Your task to perform on an android device: check android version Image 0: 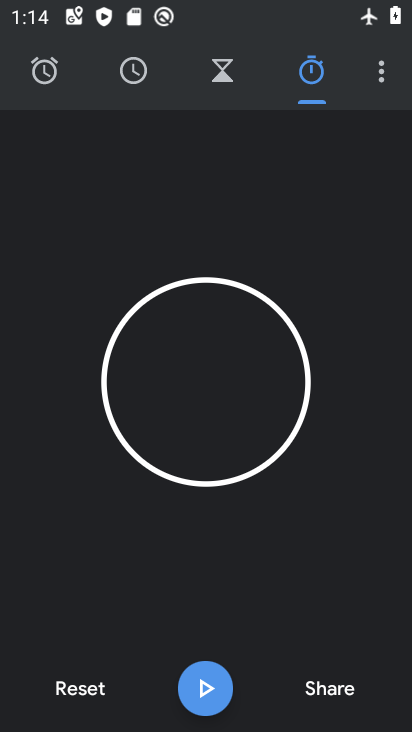
Step 0: press home button
Your task to perform on an android device: check android version Image 1: 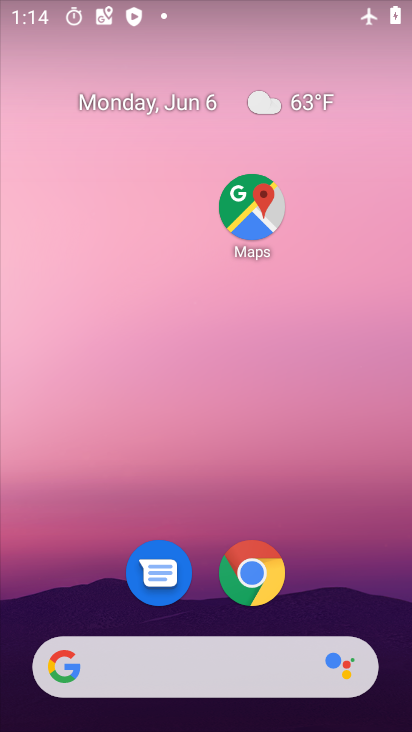
Step 1: drag from (207, 498) to (169, 2)
Your task to perform on an android device: check android version Image 2: 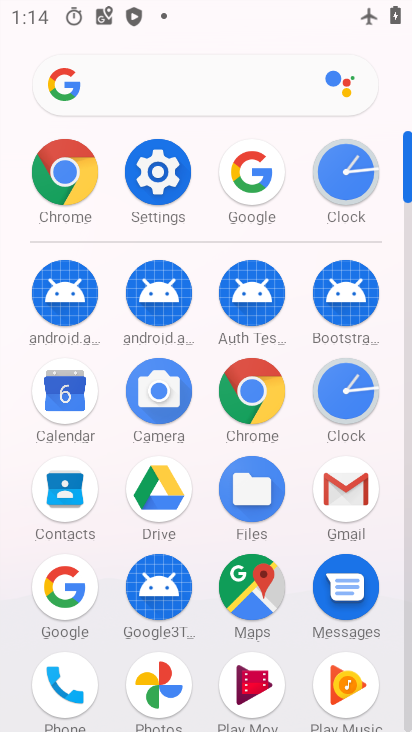
Step 2: click (210, 0)
Your task to perform on an android device: check android version Image 3: 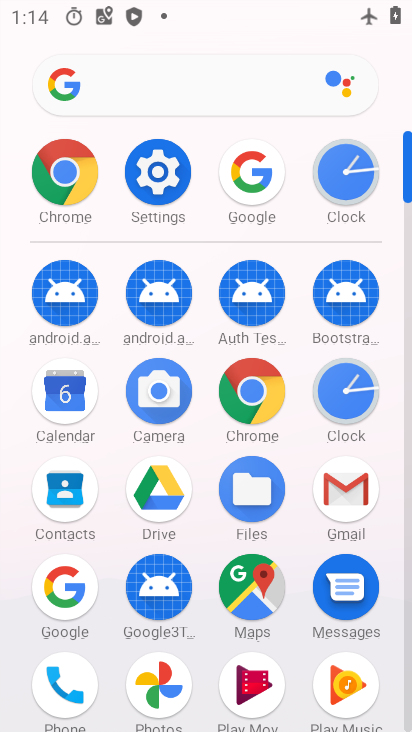
Step 3: drag from (208, 246) to (247, 14)
Your task to perform on an android device: check android version Image 4: 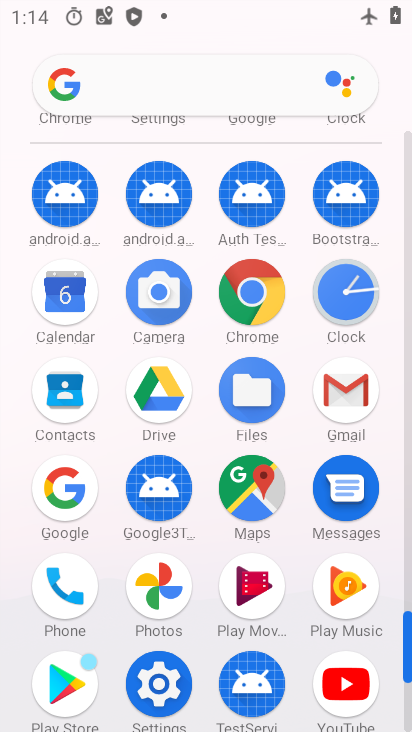
Step 4: click (166, 668)
Your task to perform on an android device: check android version Image 5: 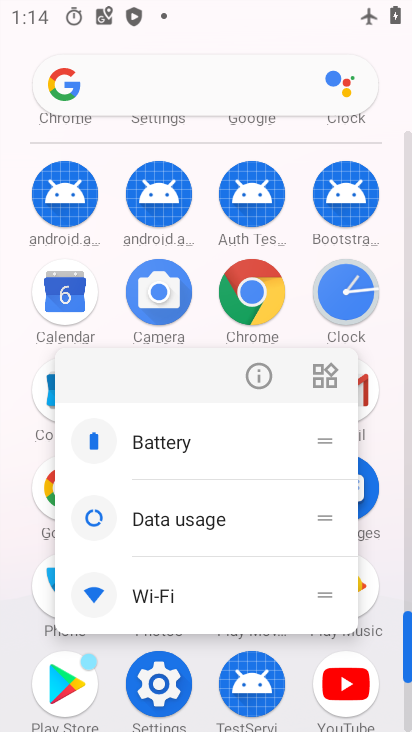
Step 5: click (142, 676)
Your task to perform on an android device: check android version Image 6: 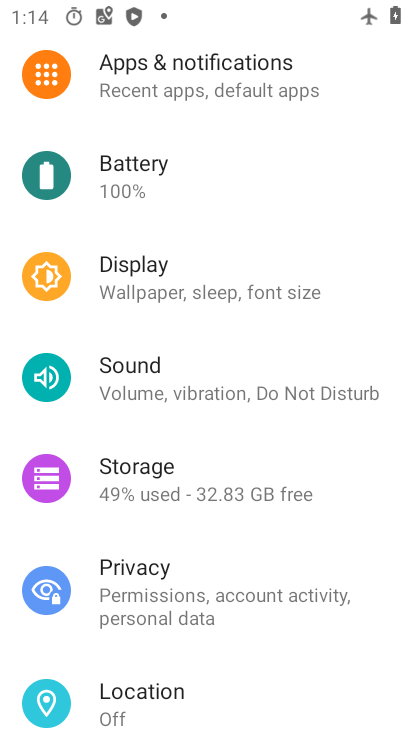
Step 6: drag from (216, 678) to (261, 58)
Your task to perform on an android device: check android version Image 7: 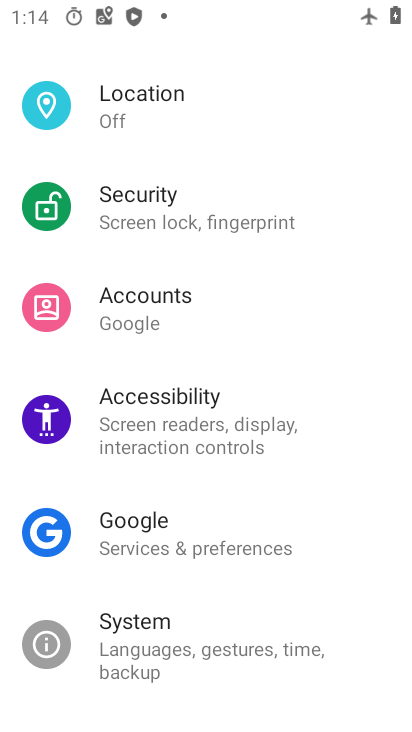
Step 7: drag from (192, 412) to (210, 116)
Your task to perform on an android device: check android version Image 8: 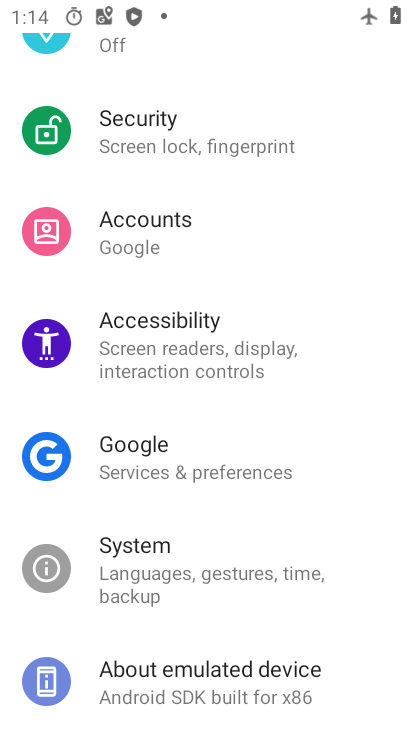
Step 8: drag from (186, 517) to (228, 81)
Your task to perform on an android device: check android version Image 9: 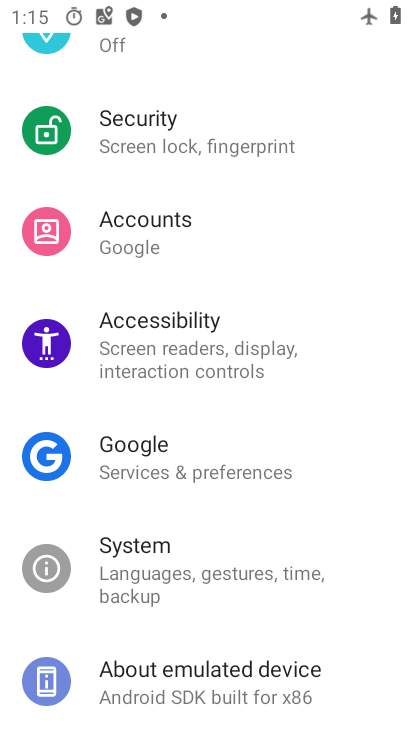
Step 9: drag from (204, 600) to (241, 221)
Your task to perform on an android device: check android version Image 10: 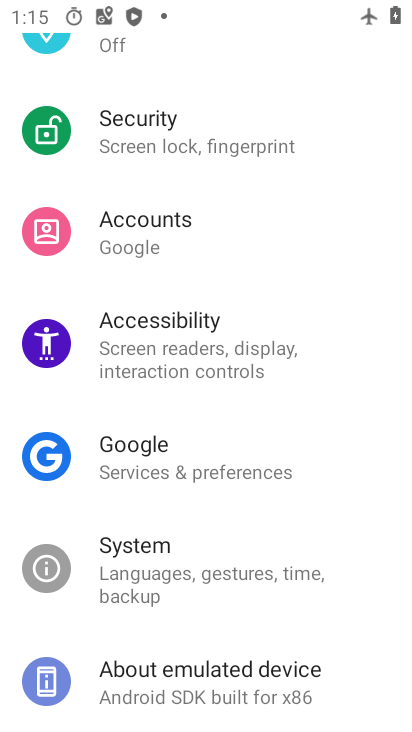
Step 10: click (224, 683)
Your task to perform on an android device: check android version Image 11: 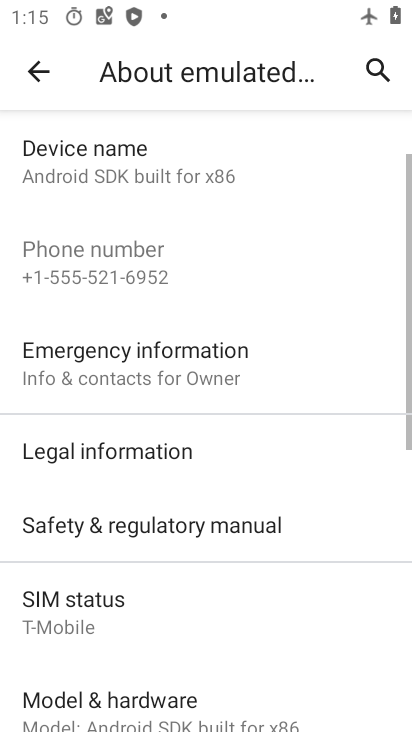
Step 11: drag from (207, 656) to (278, 187)
Your task to perform on an android device: check android version Image 12: 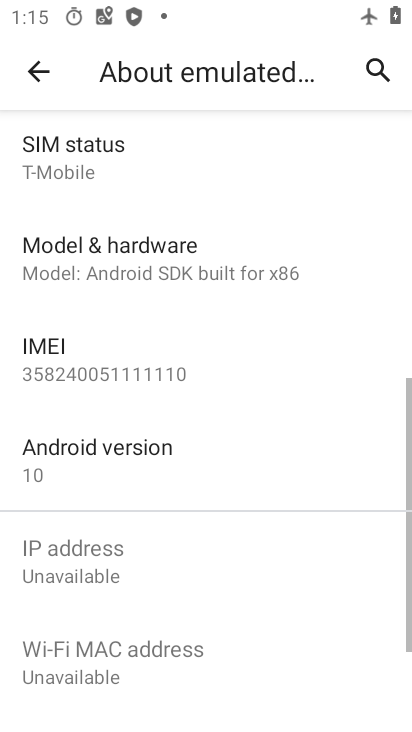
Step 12: click (171, 483)
Your task to perform on an android device: check android version Image 13: 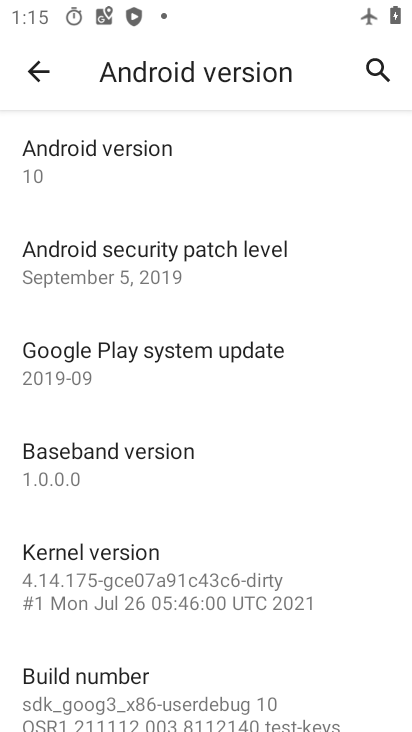
Step 13: task complete